Your task to perform on an android device: Open Reddit.com Image 0: 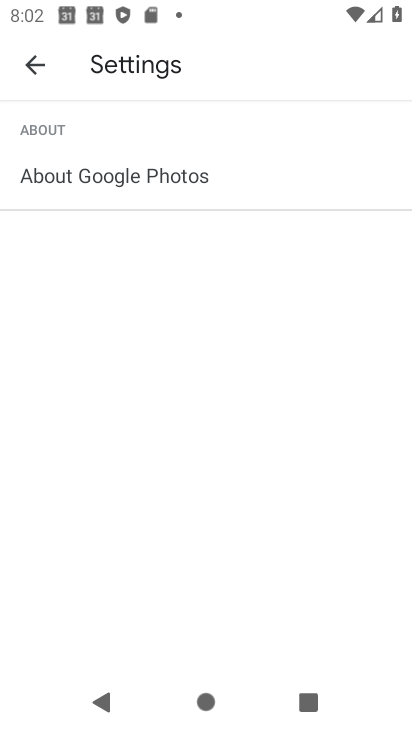
Step 0: press home button
Your task to perform on an android device: Open Reddit.com Image 1: 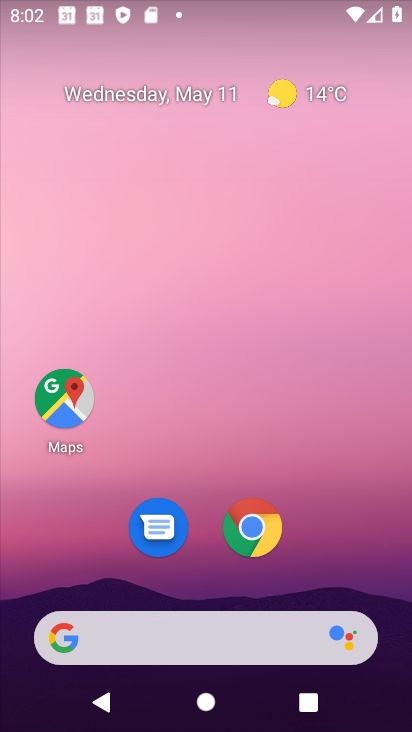
Step 1: click (204, 625)
Your task to perform on an android device: Open Reddit.com Image 2: 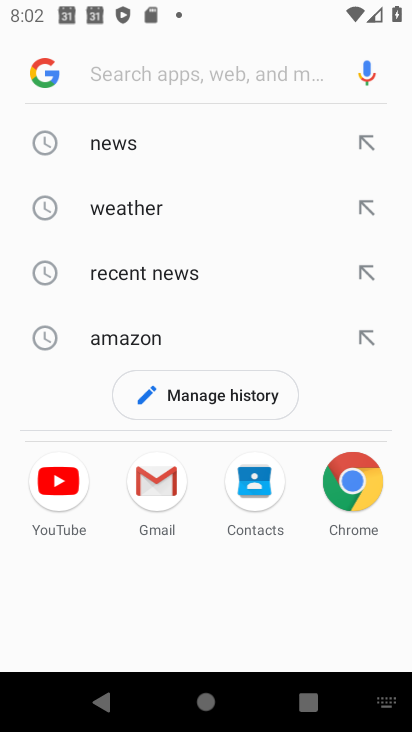
Step 2: type "reddit"
Your task to perform on an android device: Open Reddit.com Image 3: 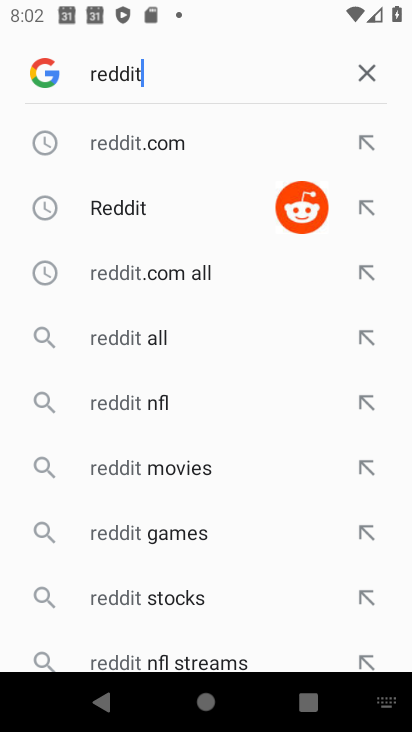
Step 3: click (198, 191)
Your task to perform on an android device: Open Reddit.com Image 4: 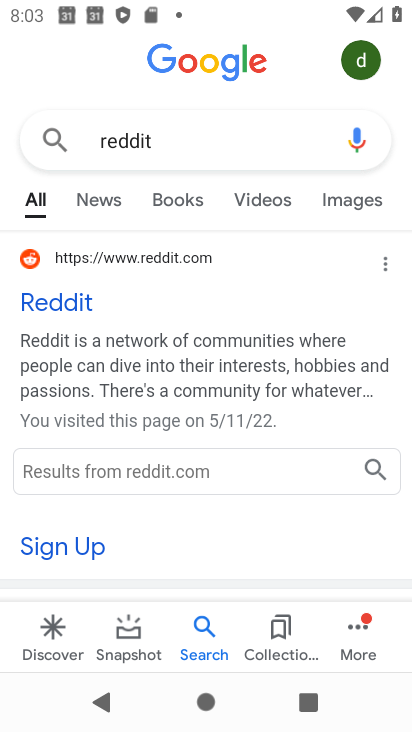
Step 4: click (56, 315)
Your task to perform on an android device: Open Reddit.com Image 5: 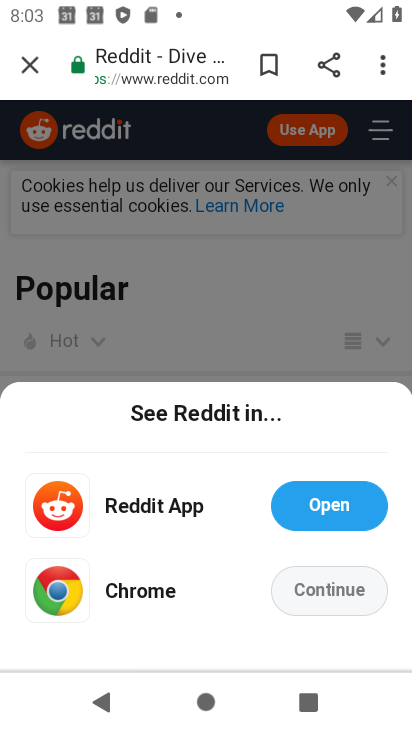
Step 5: task complete